Your task to perform on an android device: See recent photos Image 0: 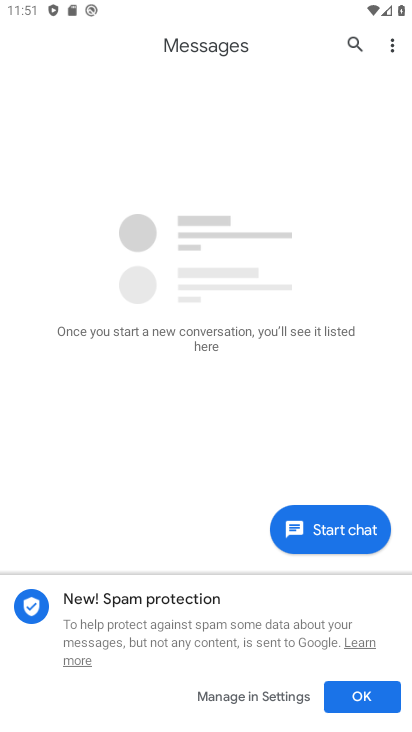
Step 0: press home button
Your task to perform on an android device: See recent photos Image 1: 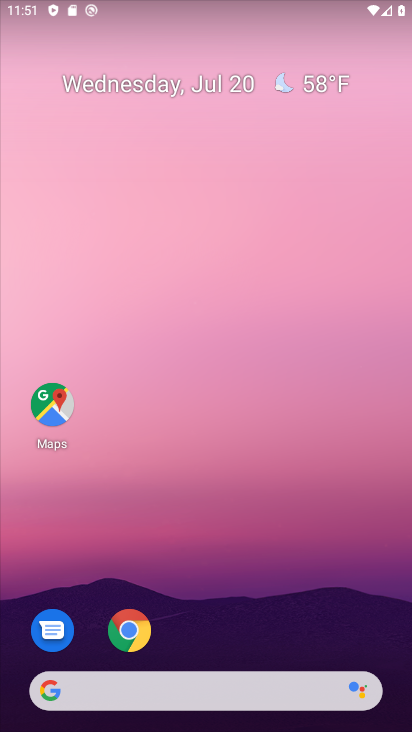
Step 1: drag from (183, 697) to (190, 187)
Your task to perform on an android device: See recent photos Image 2: 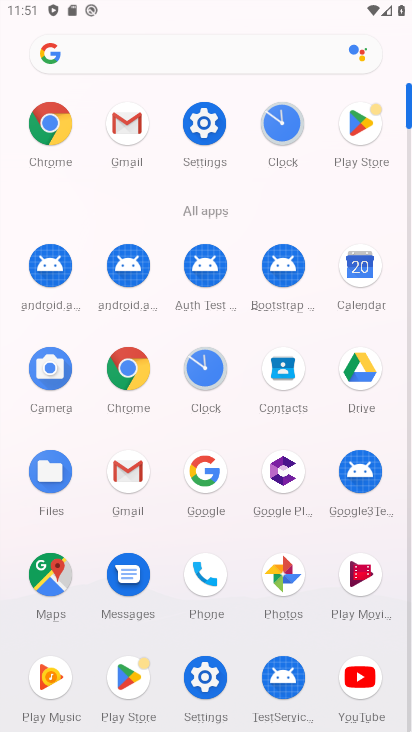
Step 2: click (290, 582)
Your task to perform on an android device: See recent photos Image 3: 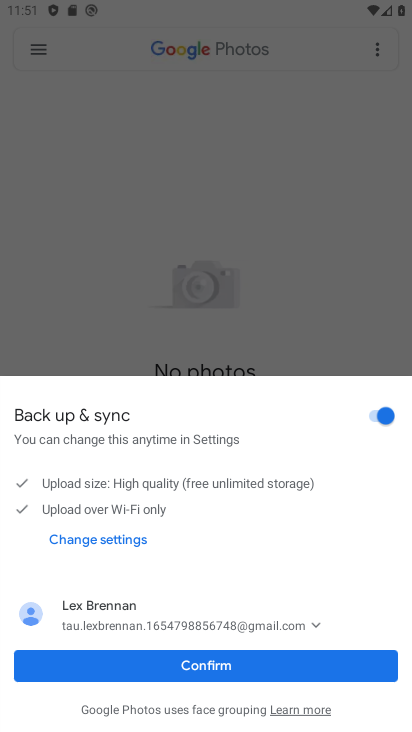
Step 3: click (234, 673)
Your task to perform on an android device: See recent photos Image 4: 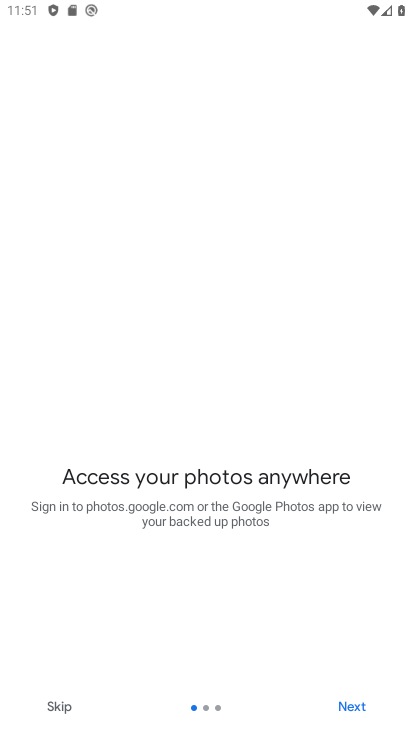
Step 4: click (345, 706)
Your task to perform on an android device: See recent photos Image 5: 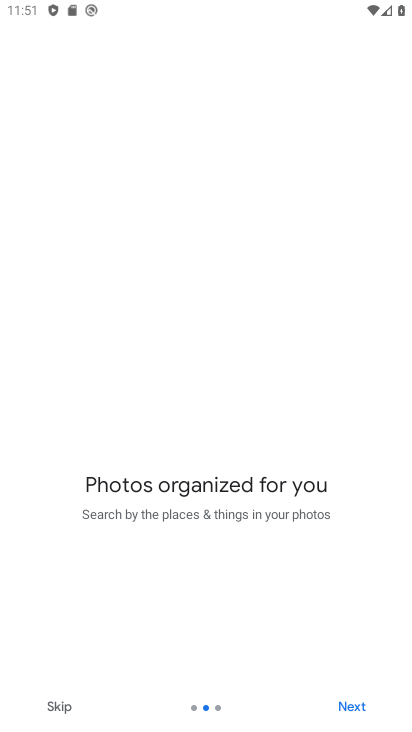
Step 5: click (345, 706)
Your task to perform on an android device: See recent photos Image 6: 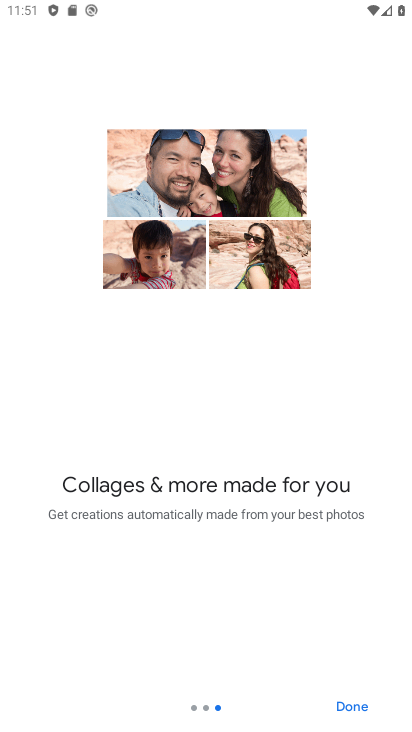
Step 6: click (345, 706)
Your task to perform on an android device: See recent photos Image 7: 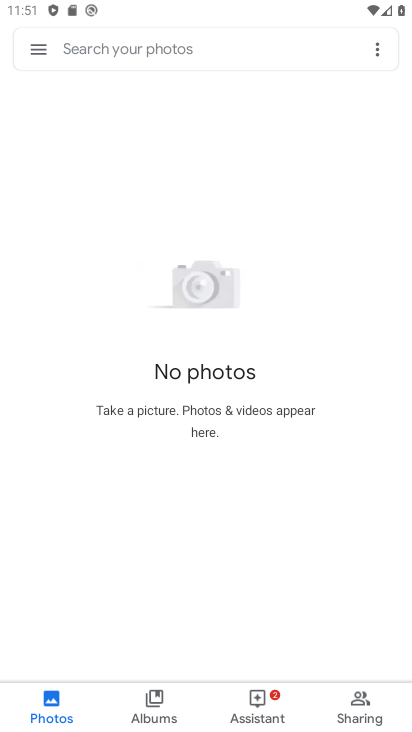
Step 7: task complete